Your task to perform on an android device: toggle data saver in the chrome app Image 0: 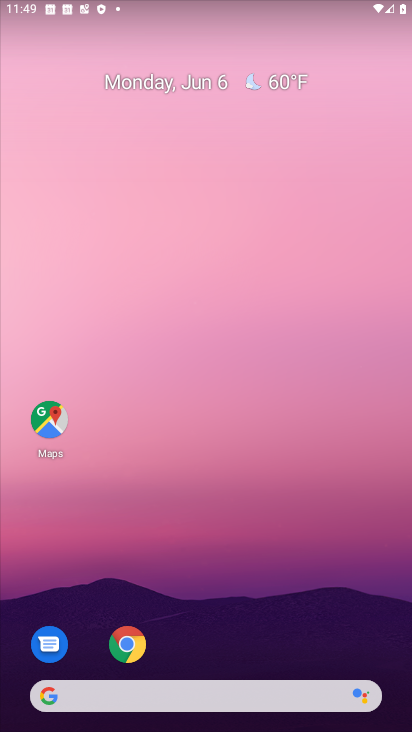
Step 0: drag from (231, 679) to (325, 151)
Your task to perform on an android device: toggle data saver in the chrome app Image 1: 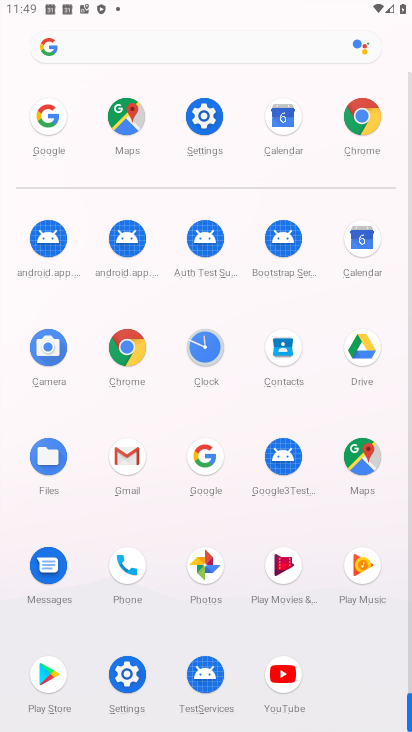
Step 1: click (362, 147)
Your task to perform on an android device: toggle data saver in the chrome app Image 2: 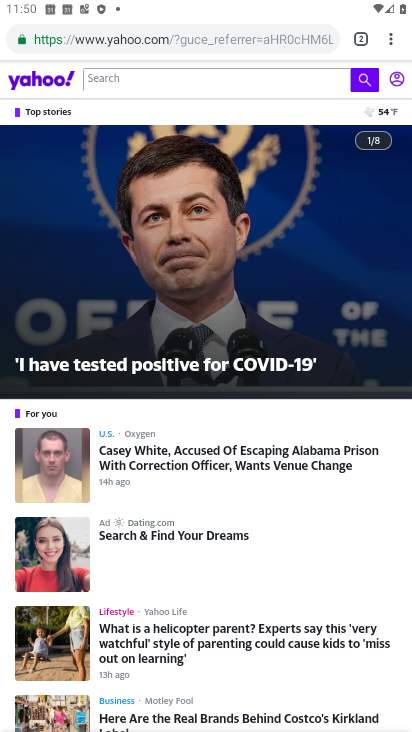
Step 2: click (399, 49)
Your task to perform on an android device: toggle data saver in the chrome app Image 3: 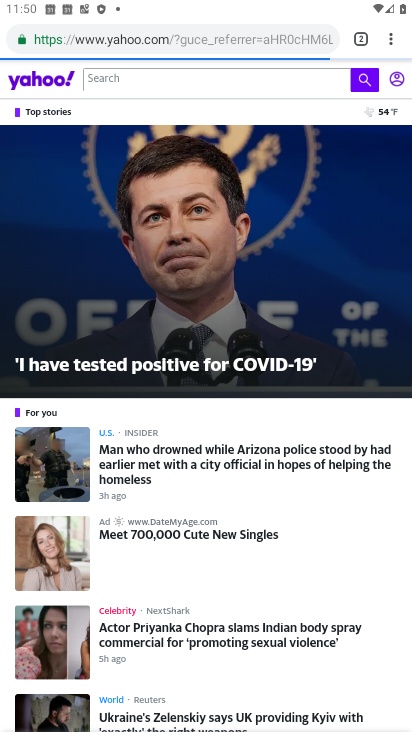
Step 3: click (392, 46)
Your task to perform on an android device: toggle data saver in the chrome app Image 4: 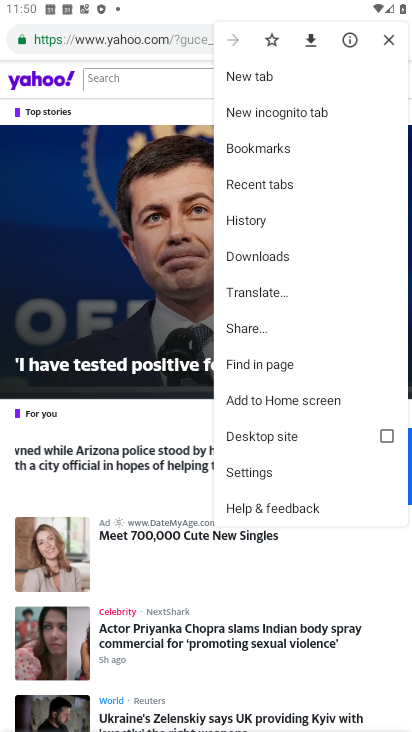
Step 4: click (247, 464)
Your task to perform on an android device: toggle data saver in the chrome app Image 5: 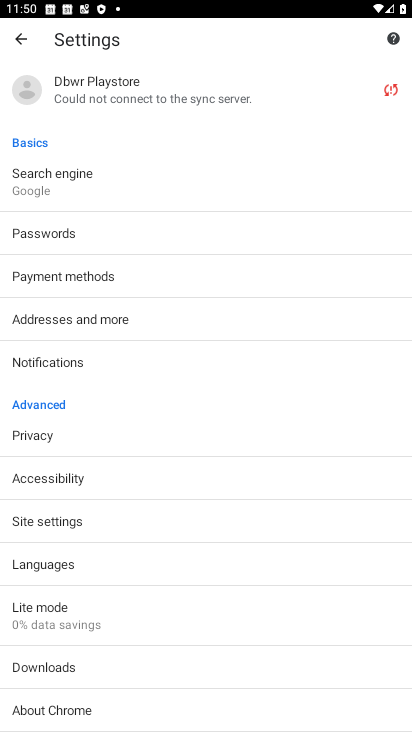
Step 5: click (134, 617)
Your task to perform on an android device: toggle data saver in the chrome app Image 6: 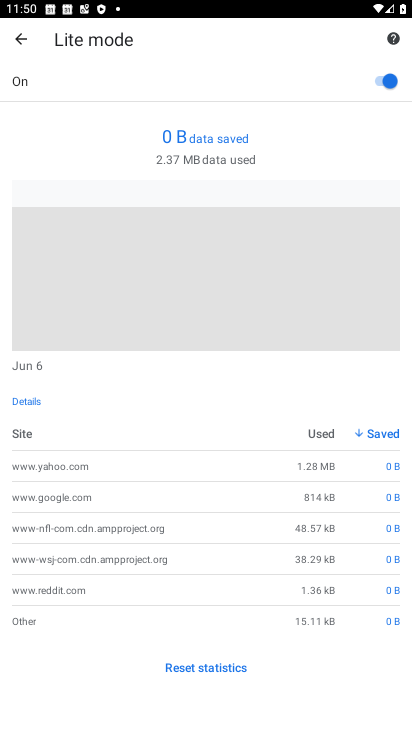
Step 6: click (377, 82)
Your task to perform on an android device: toggle data saver in the chrome app Image 7: 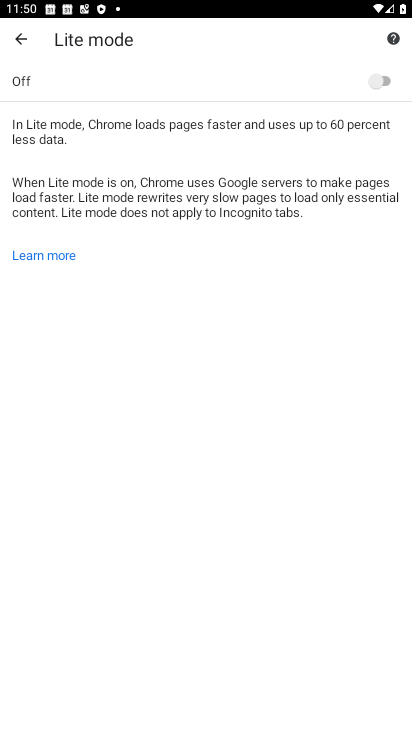
Step 7: task complete